Your task to perform on an android device: Open privacy settings Image 0: 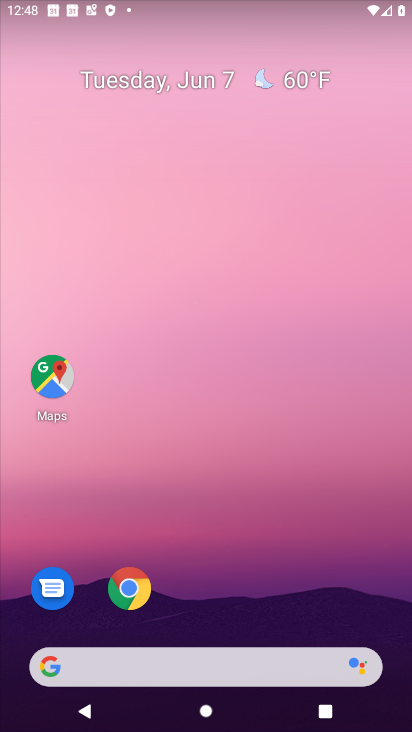
Step 0: click (45, 380)
Your task to perform on an android device: Open privacy settings Image 1: 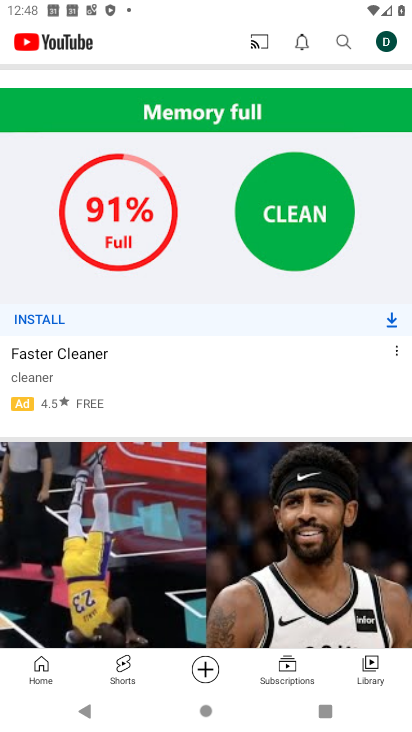
Step 1: press home button
Your task to perform on an android device: Open privacy settings Image 2: 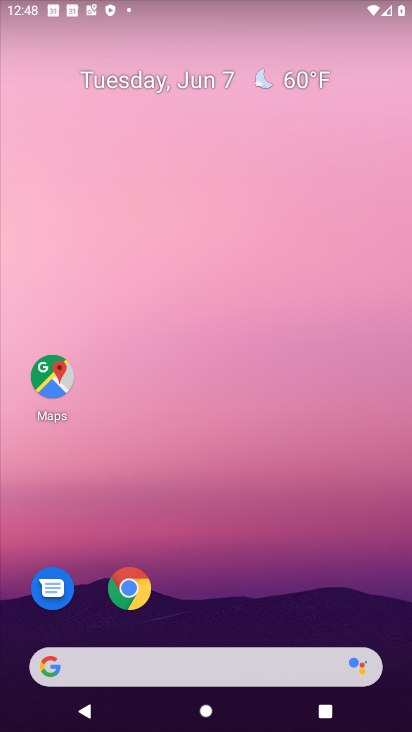
Step 2: drag from (170, 712) to (164, 560)
Your task to perform on an android device: Open privacy settings Image 3: 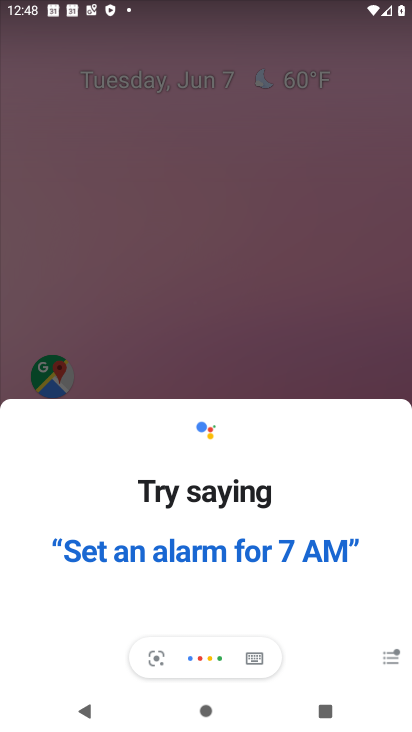
Step 3: press home button
Your task to perform on an android device: Open privacy settings Image 4: 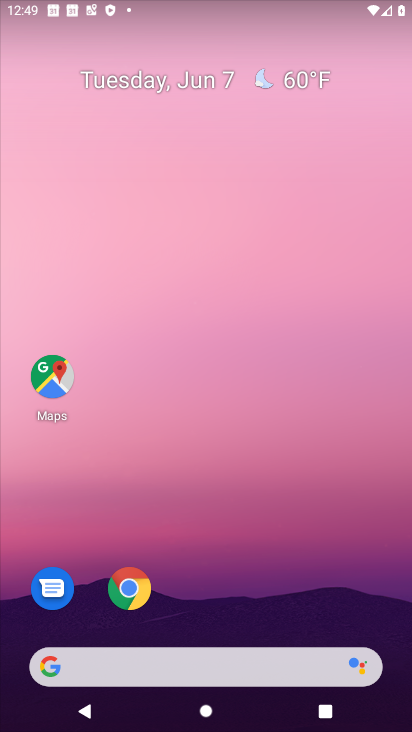
Step 4: drag from (239, 699) to (91, 160)
Your task to perform on an android device: Open privacy settings Image 5: 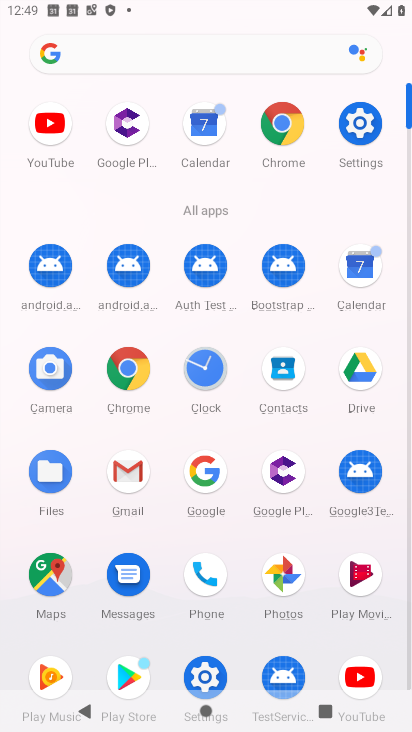
Step 5: click (363, 118)
Your task to perform on an android device: Open privacy settings Image 6: 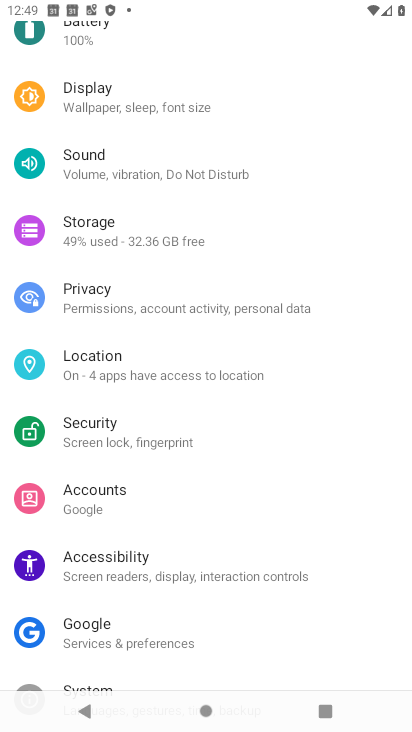
Step 6: click (259, 315)
Your task to perform on an android device: Open privacy settings Image 7: 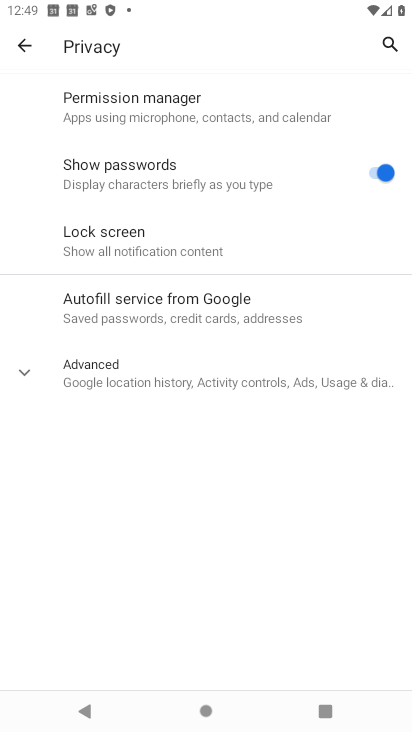
Step 7: task complete